Your task to perform on an android device: turn off location Image 0: 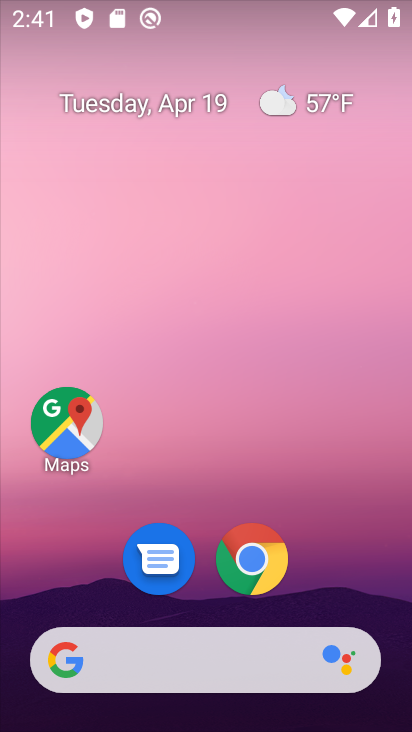
Step 0: drag from (216, 543) to (322, 140)
Your task to perform on an android device: turn off location Image 1: 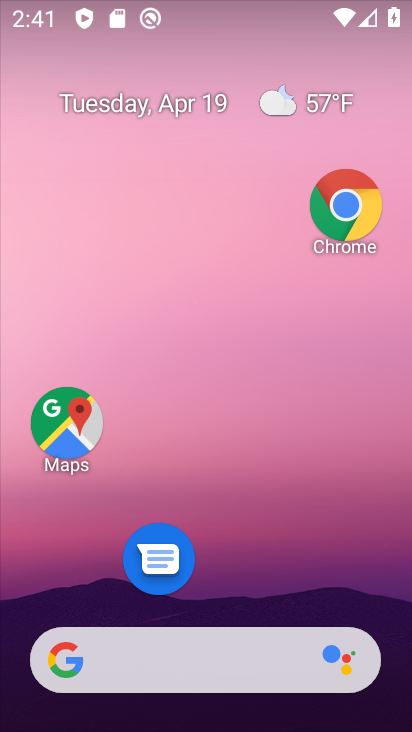
Step 1: drag from (98, 594) to (201, 173)
Your task to perform on an android device: turn off location Image 2: 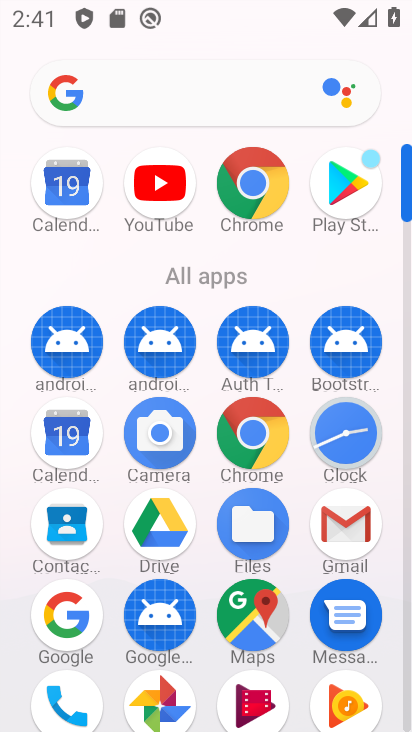
Step 2: drag from (202, 670) to (286, 321)
Your task to perform on an android device: turn off location Image 3: 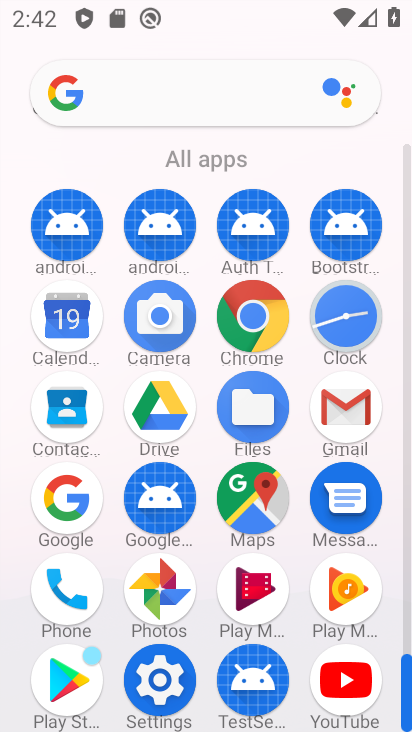
Step 3: click (162, 650)
Your task to perform on an android device: turn off location Image 4: 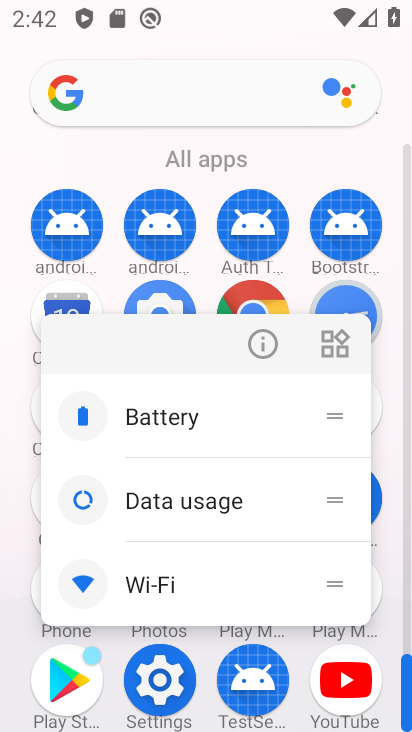
Step 4: click (274, 334)
Your task to perform on an android device: turn off location Image 5: 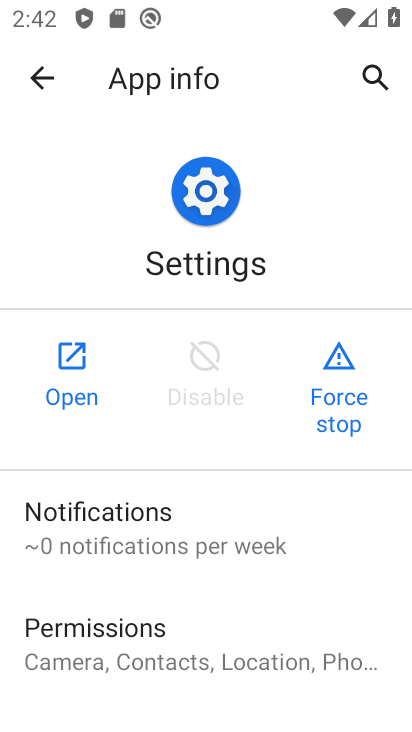
Step 5: click (62, 371)
Your task to perform on an android device: turn off location Image 6: 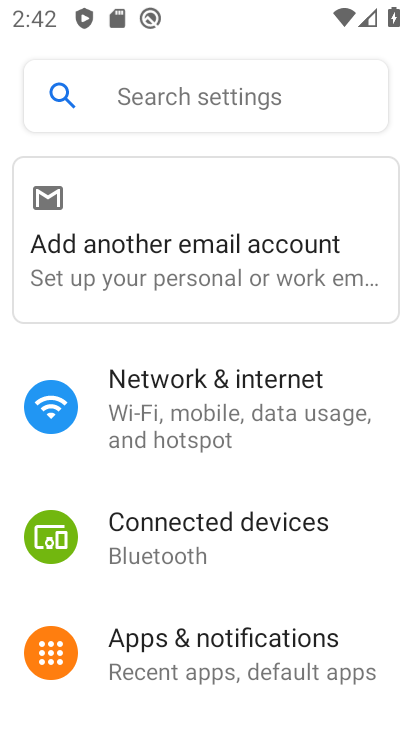
Step 6: drag from (193, 604) to (264, 275)
Your task to perform on an android device: turn off location Image 7: 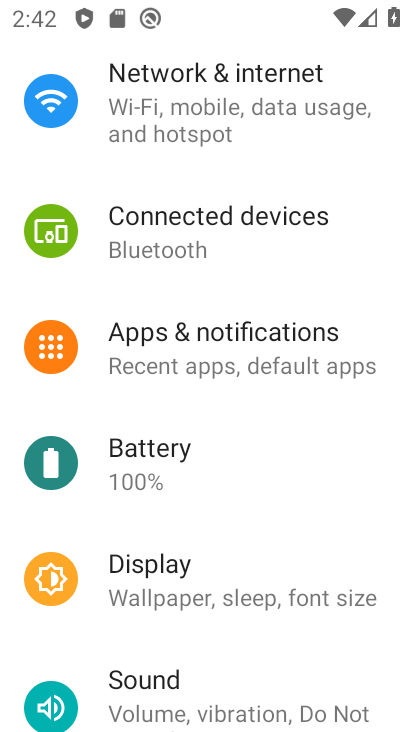
Step 7: drag from (141, 616) to (233, 310)
Your task to perform on an android device: turn off location Image 8: 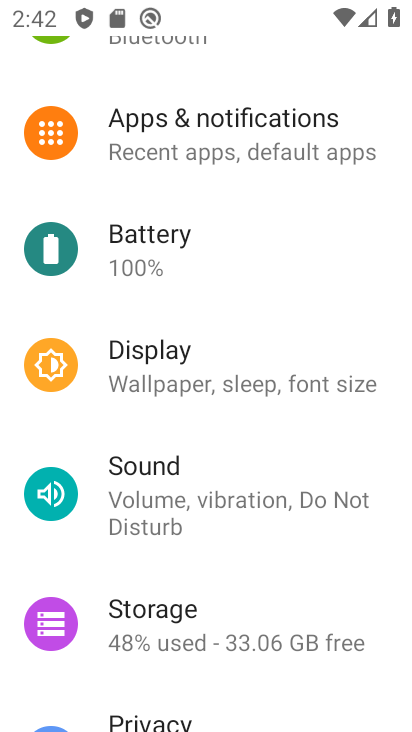
Step 8: drag from (190, 647) to (258, 370)
Your task to perform on an android device: turn off location Image 9: 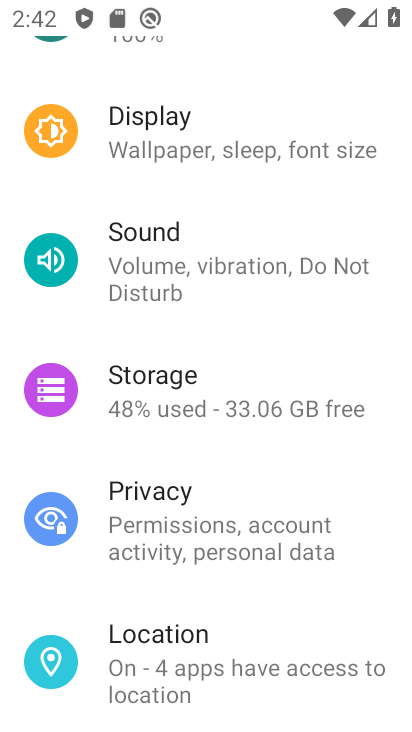
Step 9: click (147, 657)
Your task to perform on an android device: turn off location Image 10: 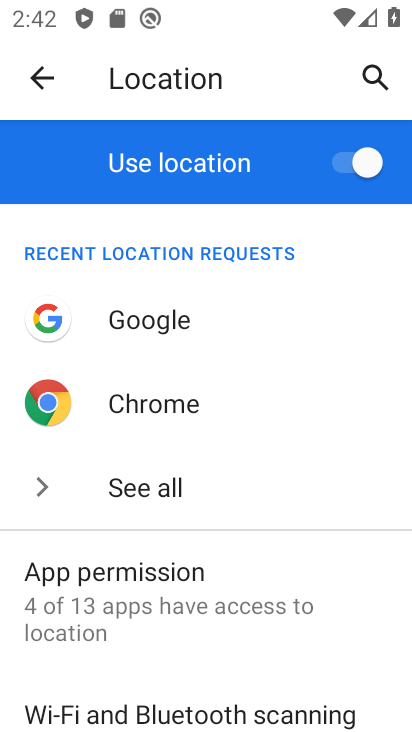
Step 10: click (349, 163)
Your task to perform on an android device: turn off location Image 11: 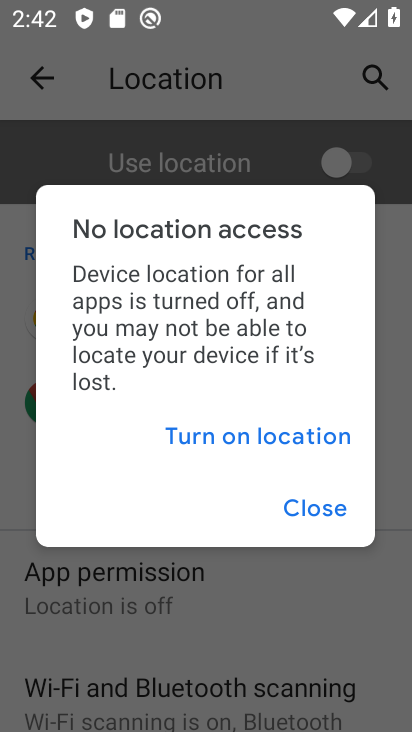
Step 11: task complete